Your task to perform on an android device: Open Youtube and go to "Your channel" Image 0: 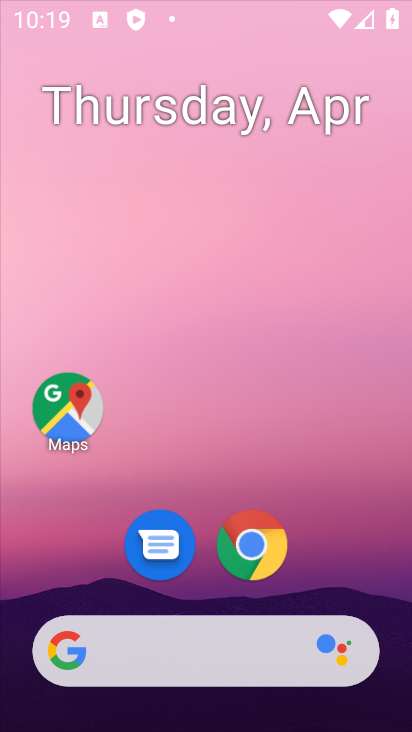
Step 0: click (259, 306)
Your task to perform on an android device: Open Youtube and go to "Your channel" Image 1: 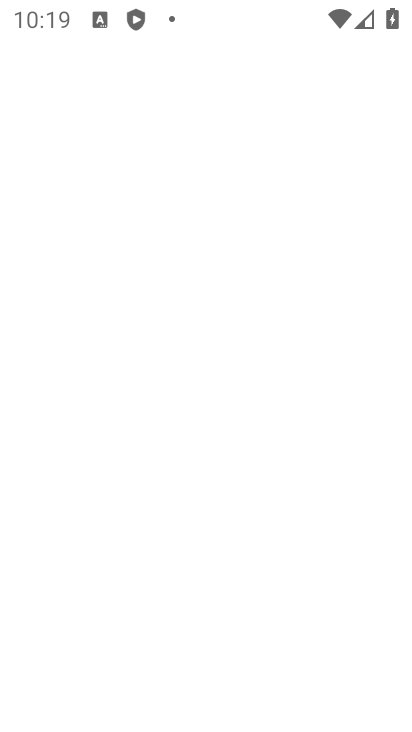
Step 1: drag from (12, 654) to (363, 173)
Your task to perform on an android device: Open Youtube and go to "Your channel" Image 2: 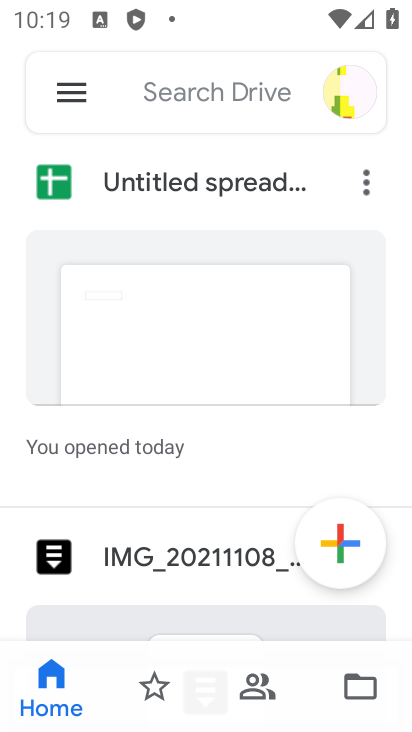
Step 2: press home button
Your task to perform on an android device: Open Youtube and go to "Your channel" Image 3: 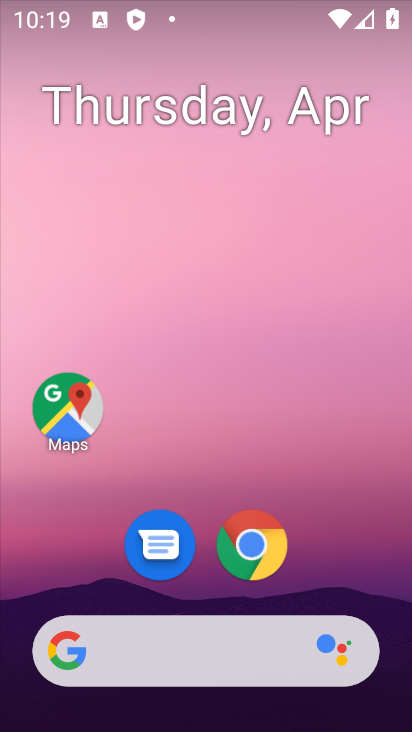
Step 3: drag from (56, 613) to (251, 328)
Your task to perform on an android device: Open Youtube and go to "Your channel" Image 4: 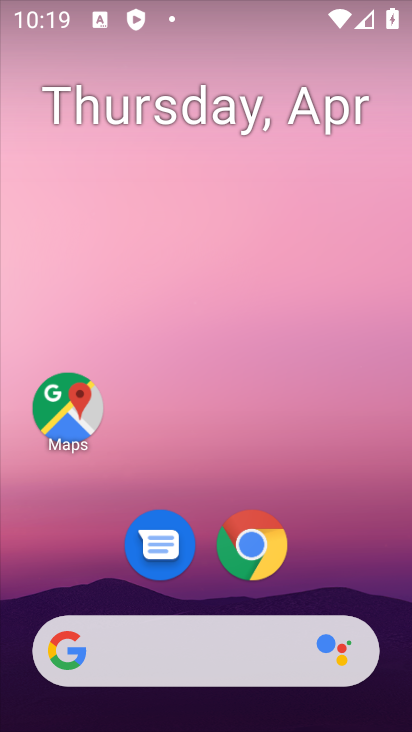
Step 4: drag from (20, 596) to (251, 238)
Your task to perform on an android device: Open Youtube and go to "Your channel" Image 5: 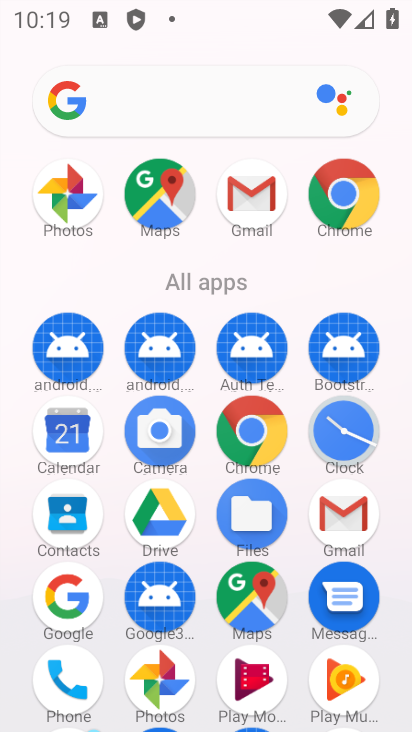
Step 5: drag from (106, 633) to (408, 272)
Your task to perform on an android device: Open Youtube and go to "Your channel" Image 6: 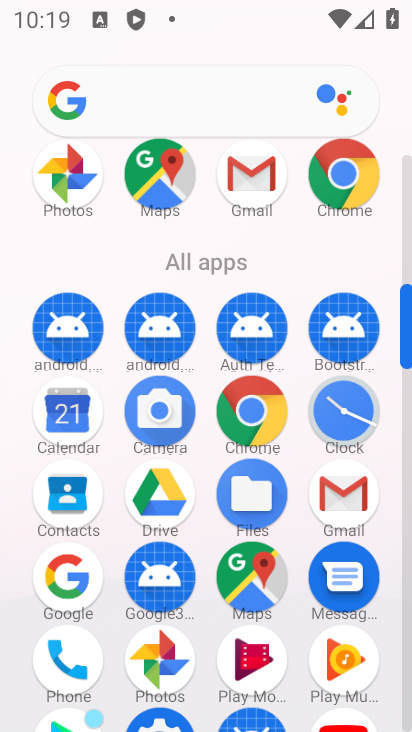
Step 6: drag from (328, 649) to (394, 393)
Your task to perform on an android device: Open Youtube and go to "Your channel" Image 7: 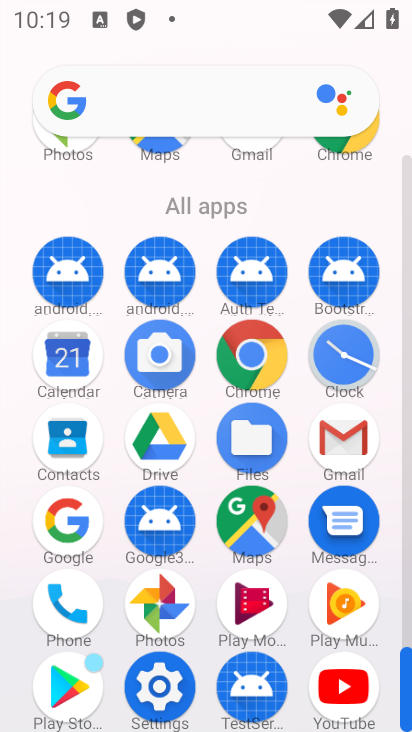
Step 7: click (340, 694)
Your task to perform on an android device: Open Youtube and go to "Your channel" Image 8: 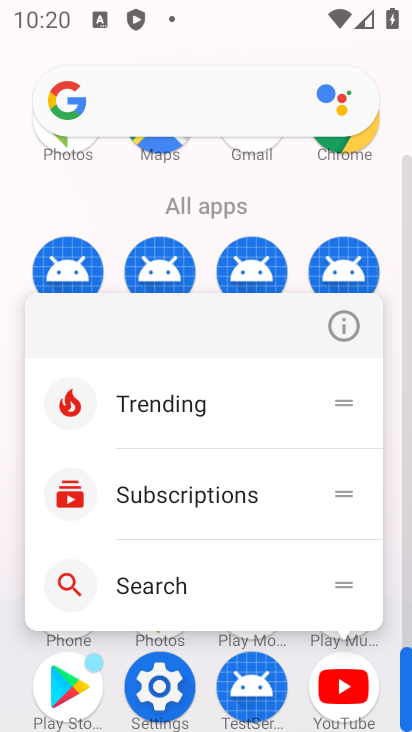
Step 8: click (351, 329)
Your task to perform on an android device: Open Youtube and go to "Your channel" Image 9: 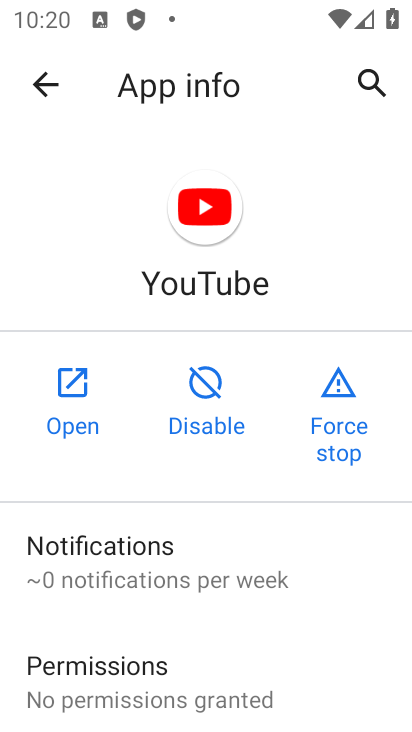
Step 9: click (73, 385)
Your task to perform on an android device: Open Youtube and go to "Your channel" Image 10: 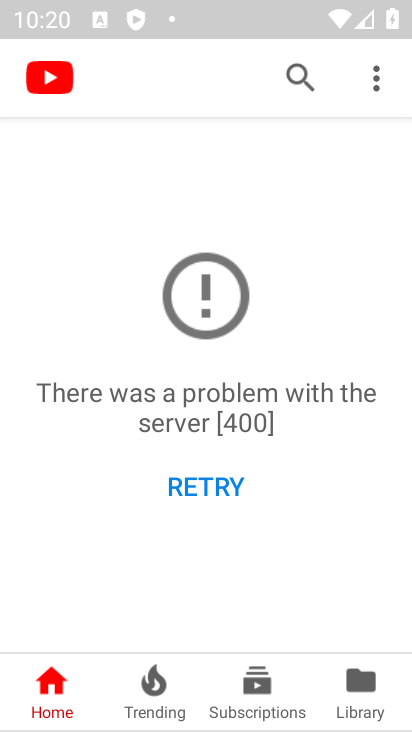
Step 10: click (164, 707)
Your task to perform on an android device: Open Youtube and go to "Your channel" Image 11: 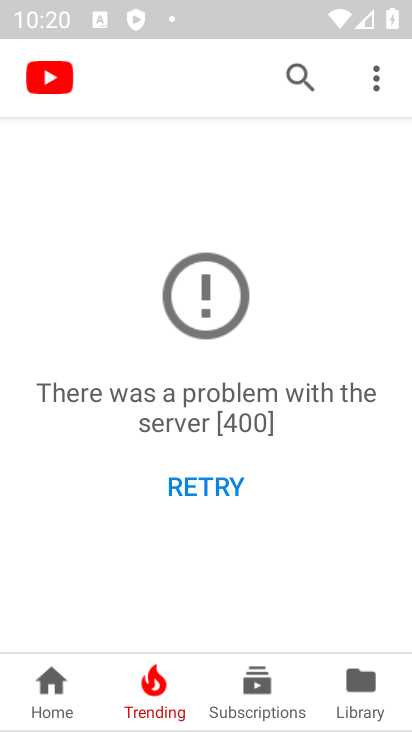
Step 11: click (254, 704)
Your task to perform on an android device: Open Youtube and go to "Your channel" Image 12: 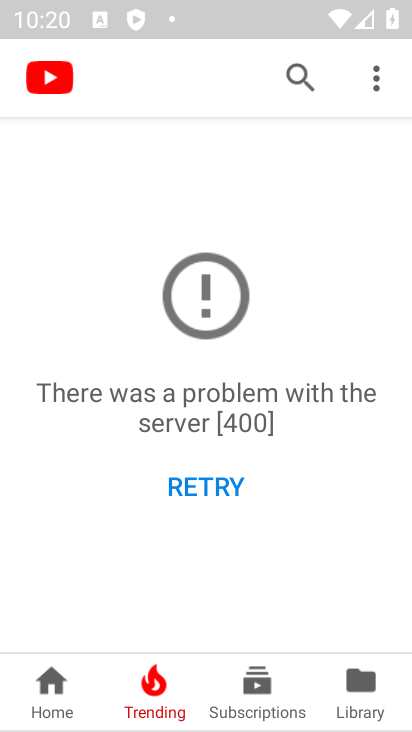
Step 12: task complete